Your task to perform on an android device: toggle airplane mode Image 0: 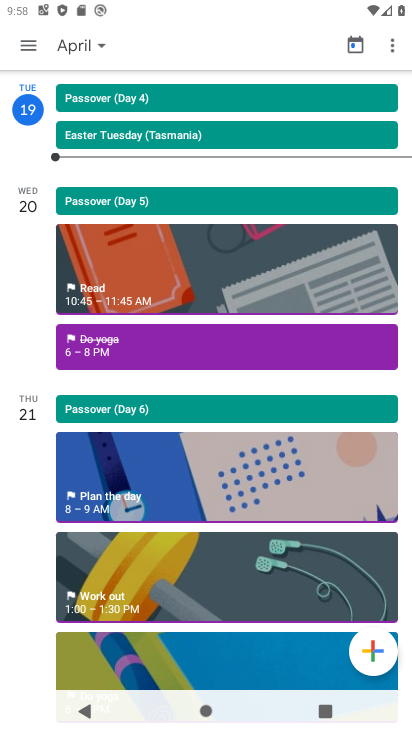
Step 0: press home button
Your task to perform on an android device: toggle airplane mode Image 1: 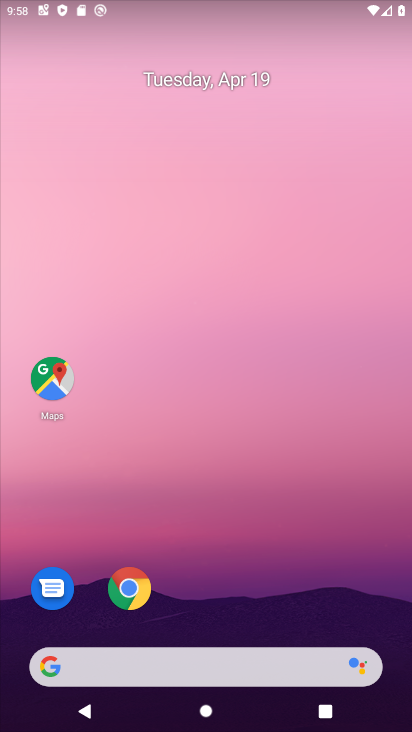
Step 1: drag from (188, 636) to (266, 87)
Your task to perform on an android device: toggle airplane mode Image 2: 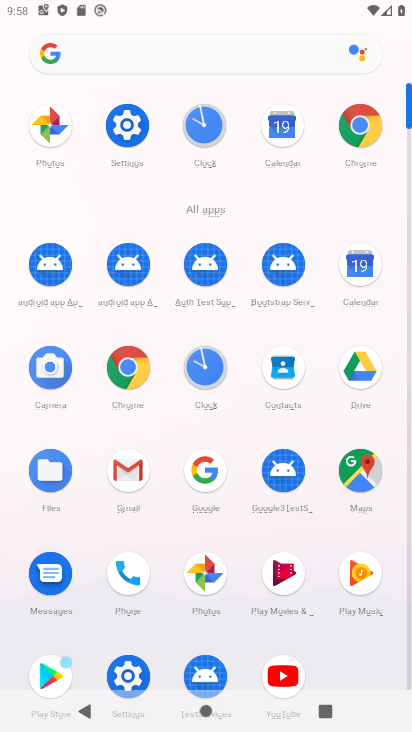
Step 2: click (118, 675)
Your task to perform on an android device: toggle airplane mode Image 3: 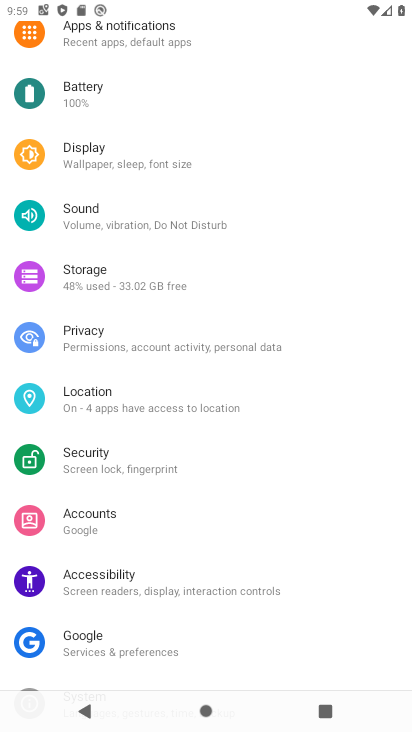
Step 3: drag from (161, 164) to (129, 599)
Your task to perform on an android device: toggle airplane mode Image 4: 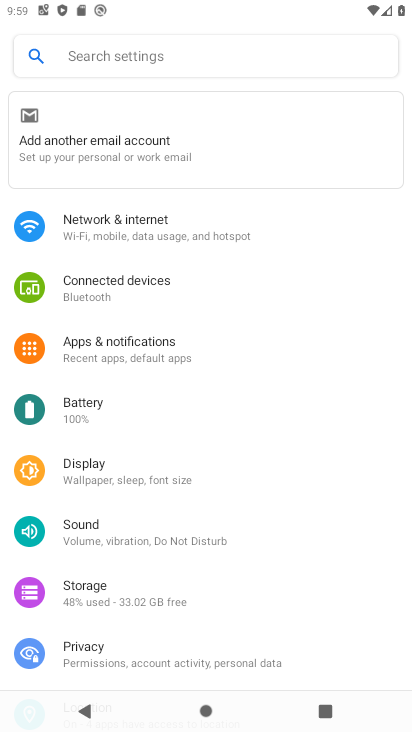
Step 4: click (172, 235)
Your task to perform on an android device: toggle airplane mode Image 5: 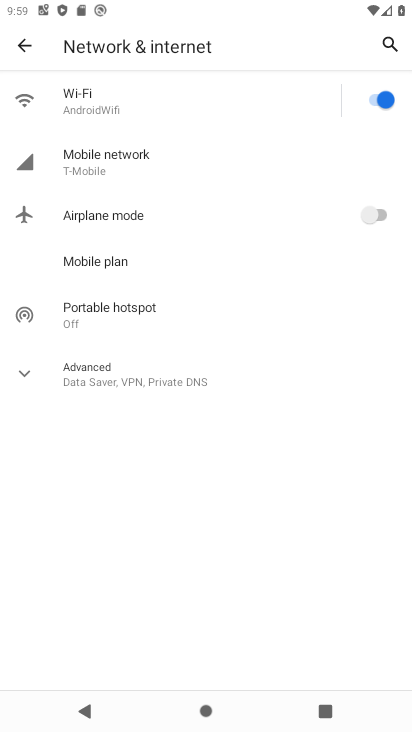
Step 5: click (371, 208)
Your task to perform on an android device: toggle airplane mode Image 6: 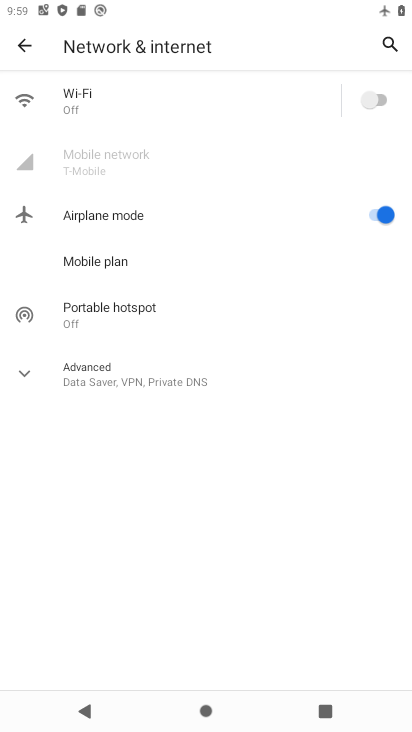
Step 6: task complete